Your task to perform on an android device: install app "Spotify" Image 0: 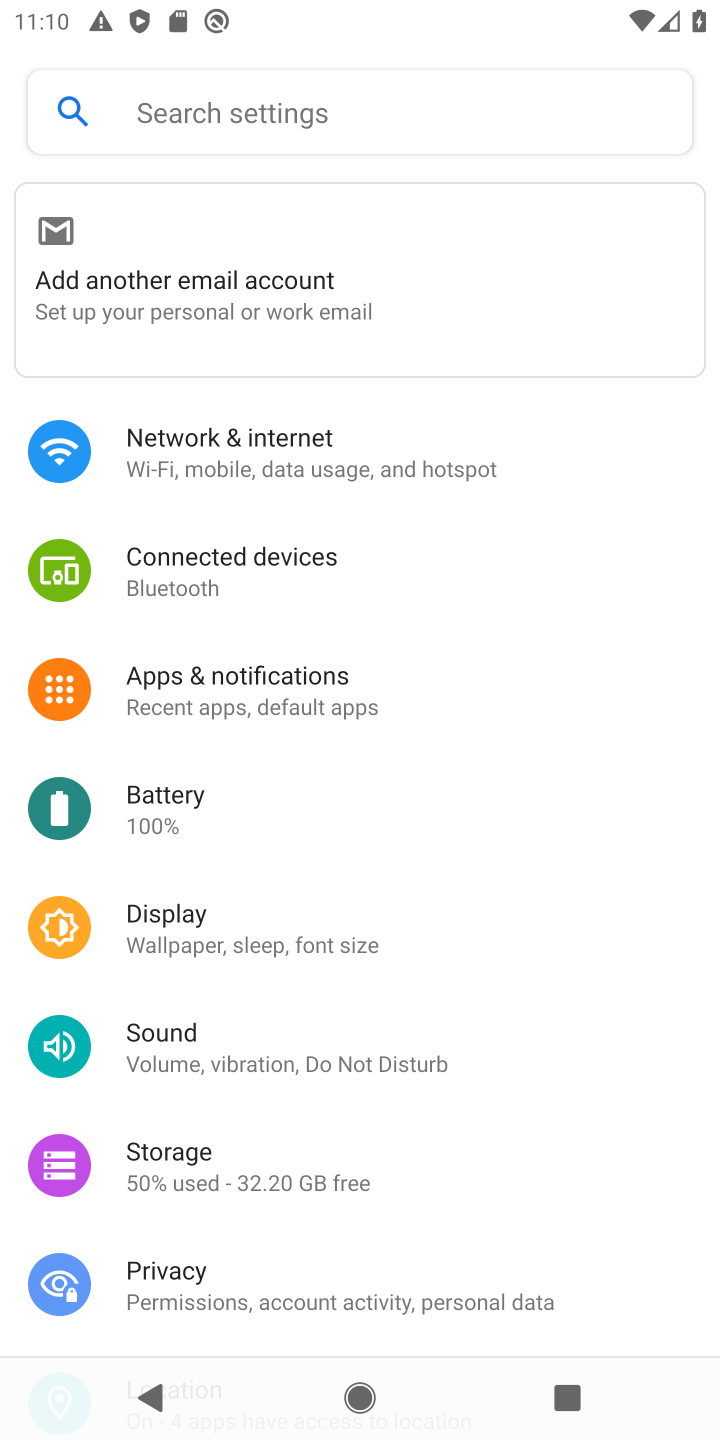
Step 0: press home button
Your task to perform on an android device: install app "Spotify" Image 1: 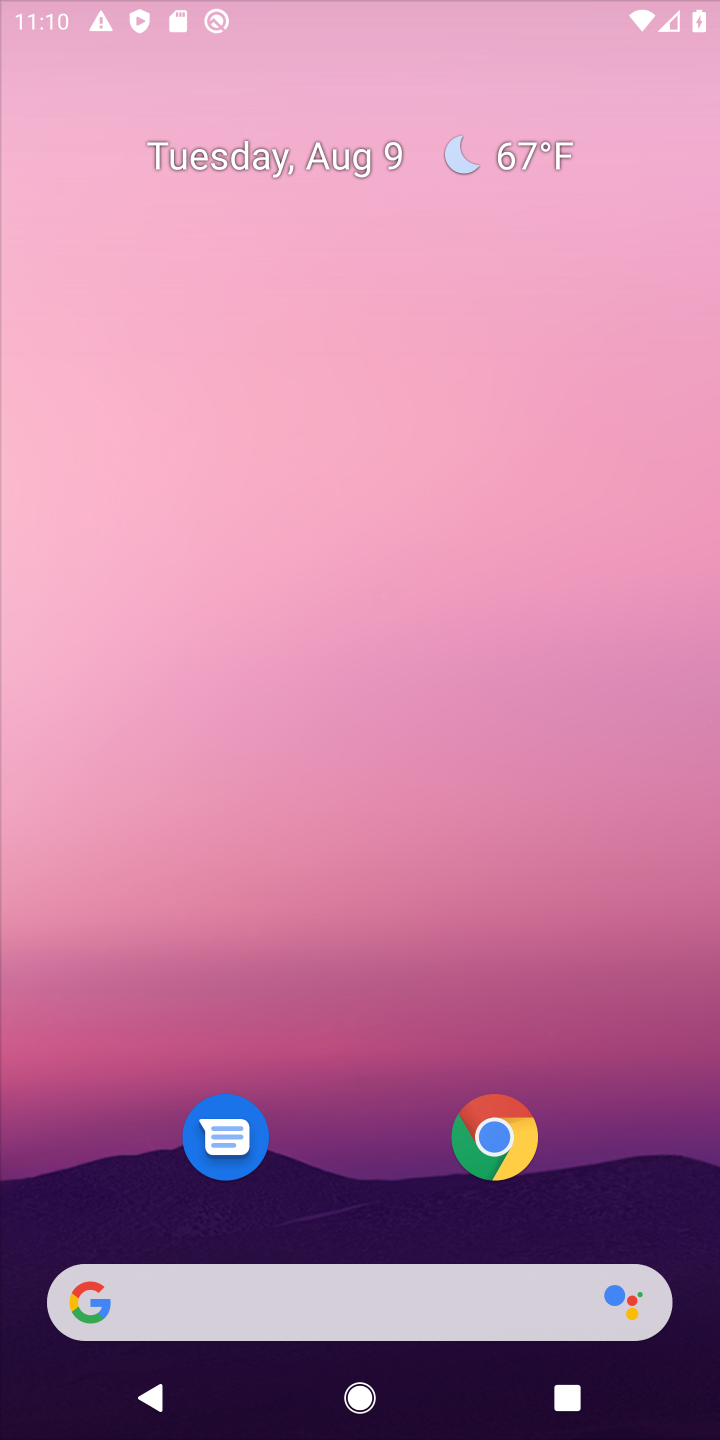
Step 1: drag from (640, 1186) to (246, 57)
Your task to perform on an android device: install app "Spotify" Image 2: 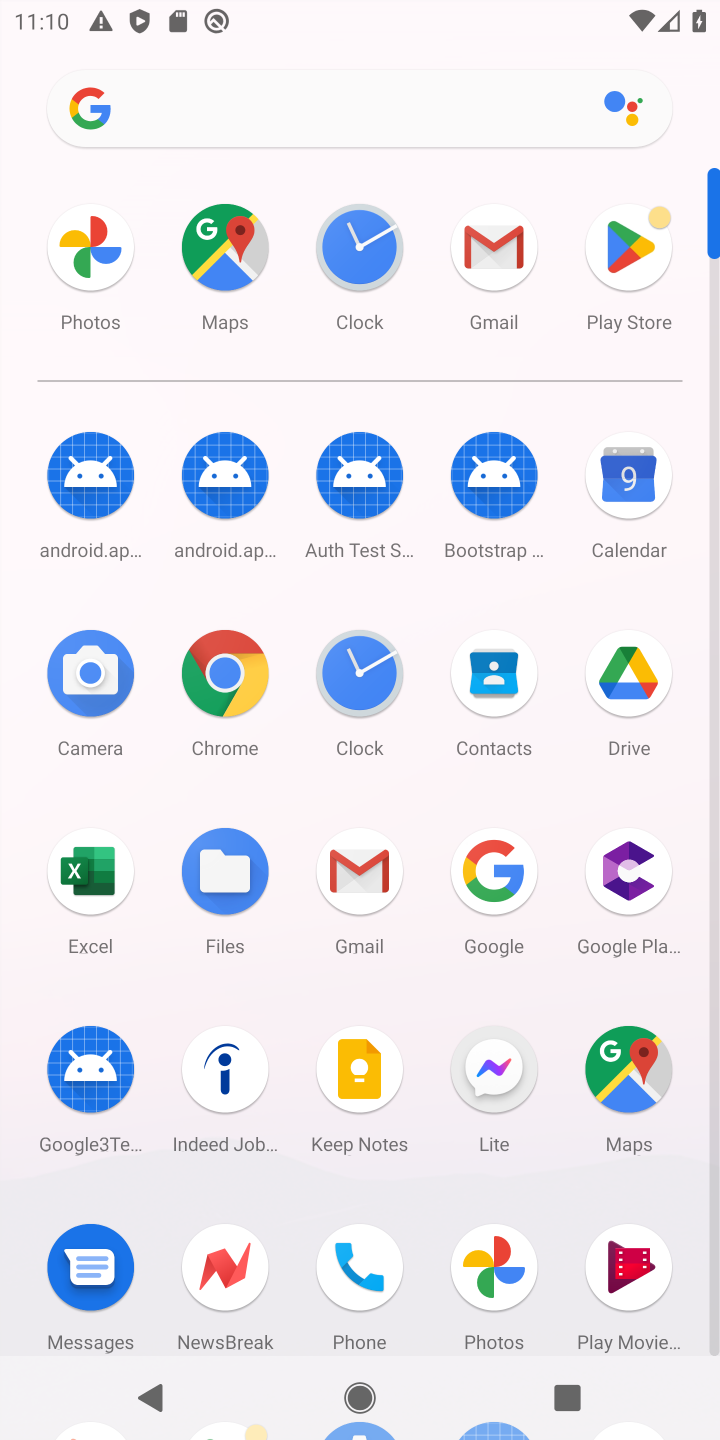
Step 2: click (621, 263)
Your task to perform on an android device: install app "Spotify" Image 3: 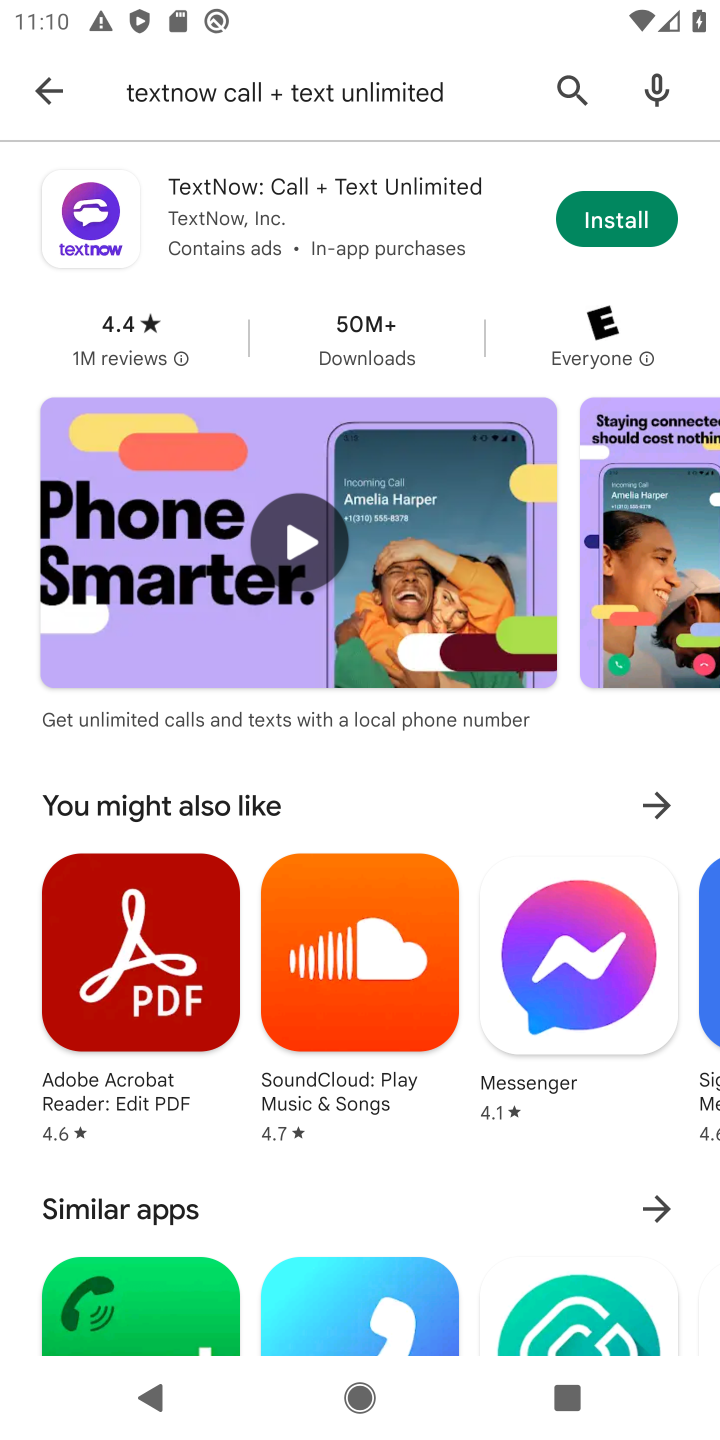
Step 3: press back button
Your task to perform on an android device: install app "Spotify" Image 4: 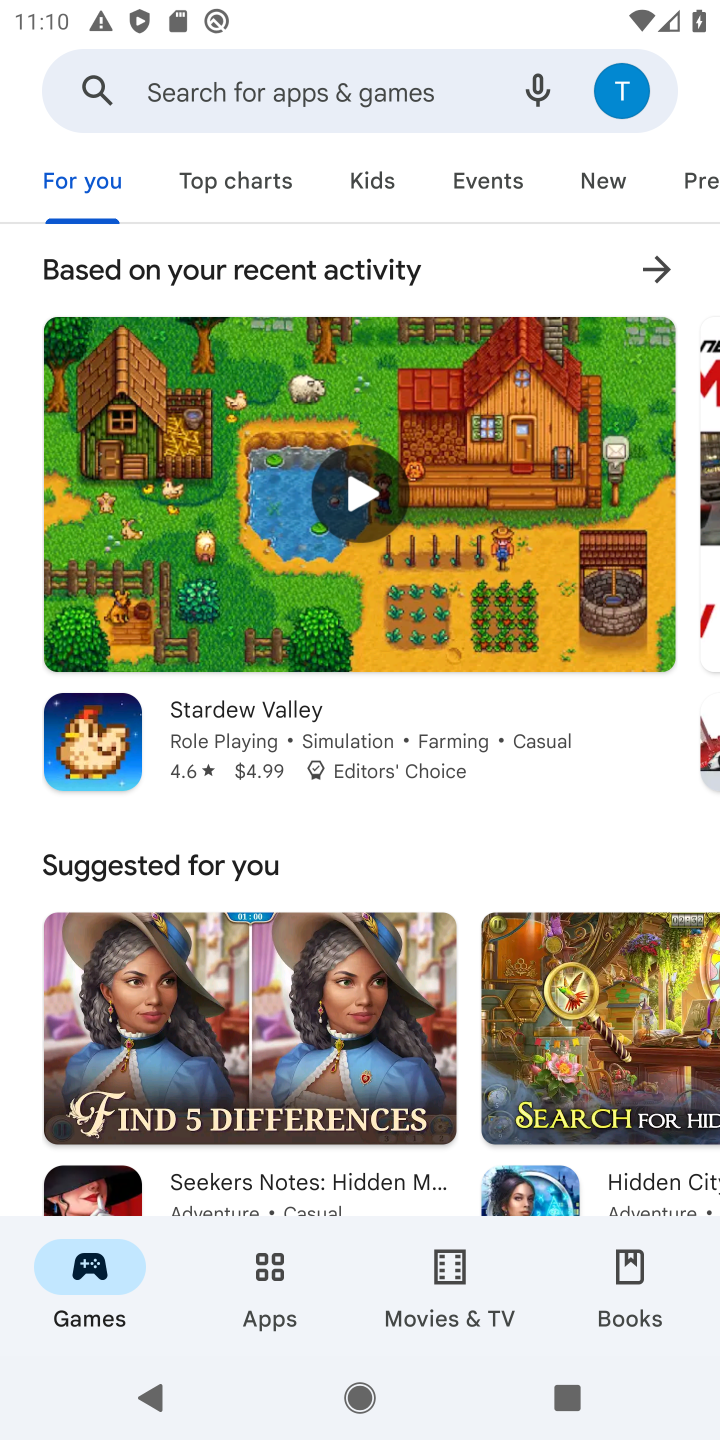
Step 4: click (270, 92)
Your task to perform on an android device: install app "Spotify" Image 5: 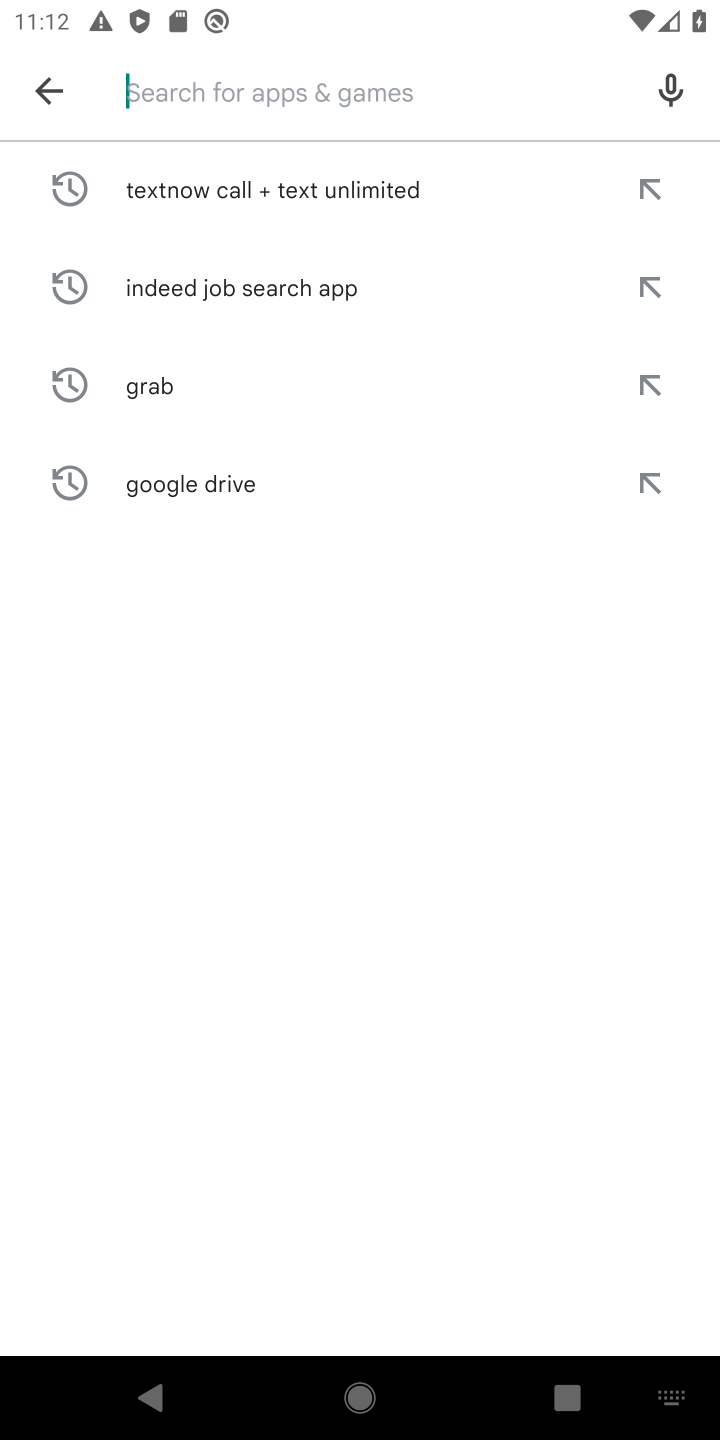
Step 5: type "Spotify"
Your task to perform on an android device: install app "Spotify" Image 6: 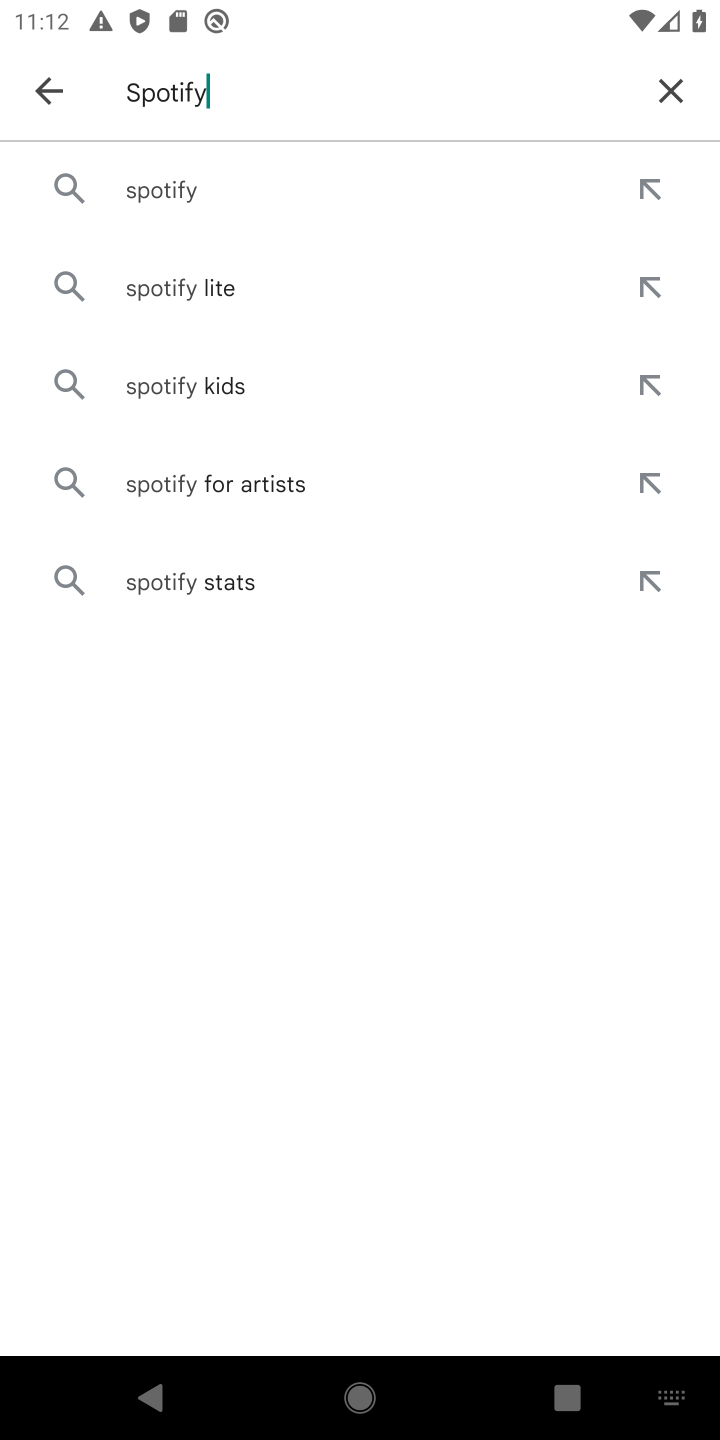
Step 6: click (192, 190)
Your task to perform on an android device: install app "Spotify" Image 7: 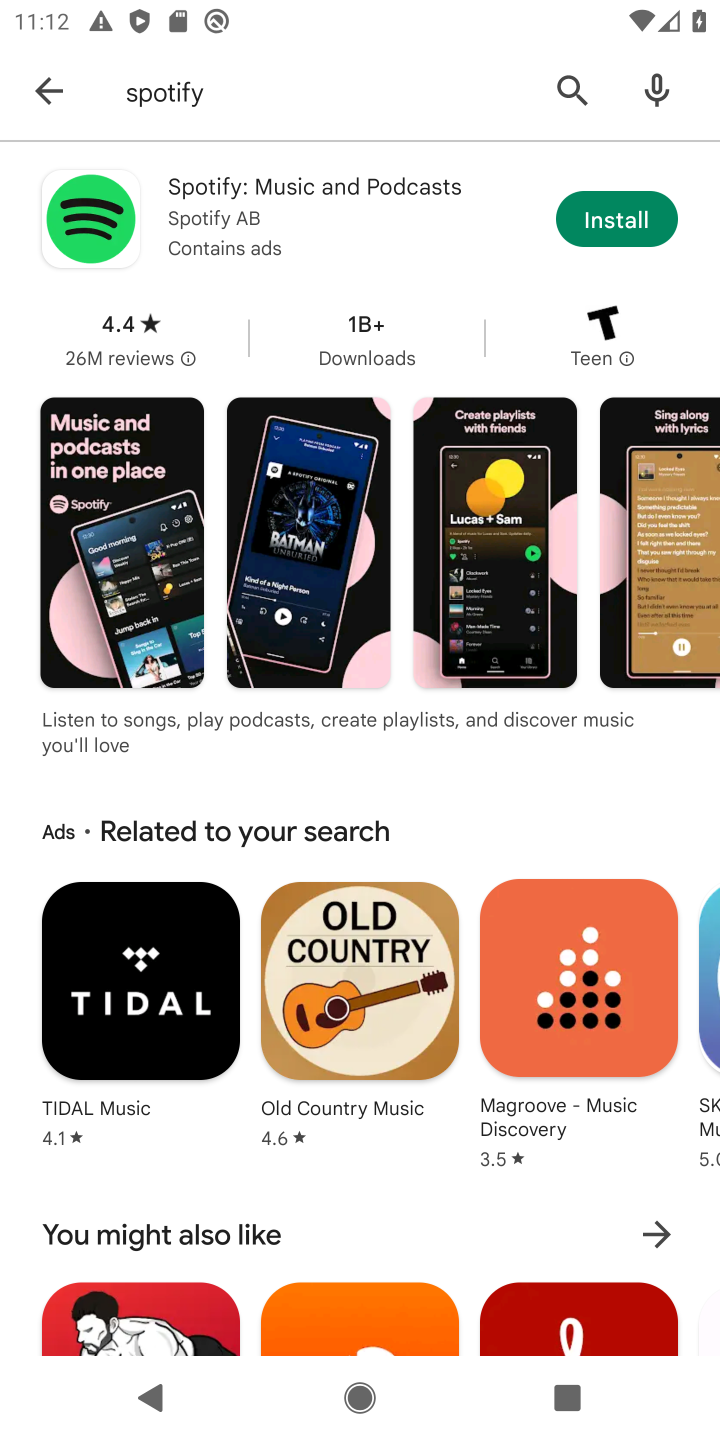
Step 7: click (634, 239)
Your task to perform on an android device: install app "Spotify" Image 8: 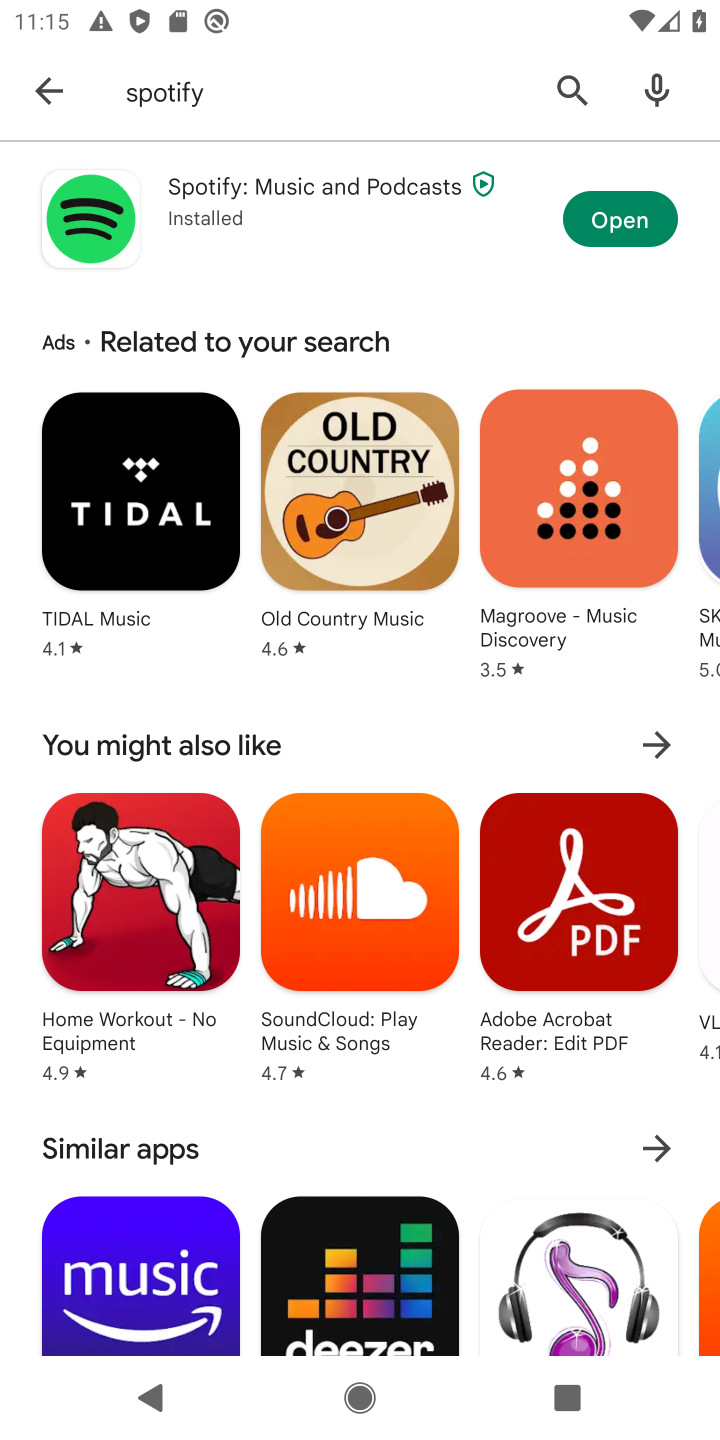
Step 8: task complete